Your task to perform on an android device: clear history in the chrome app Image 0: 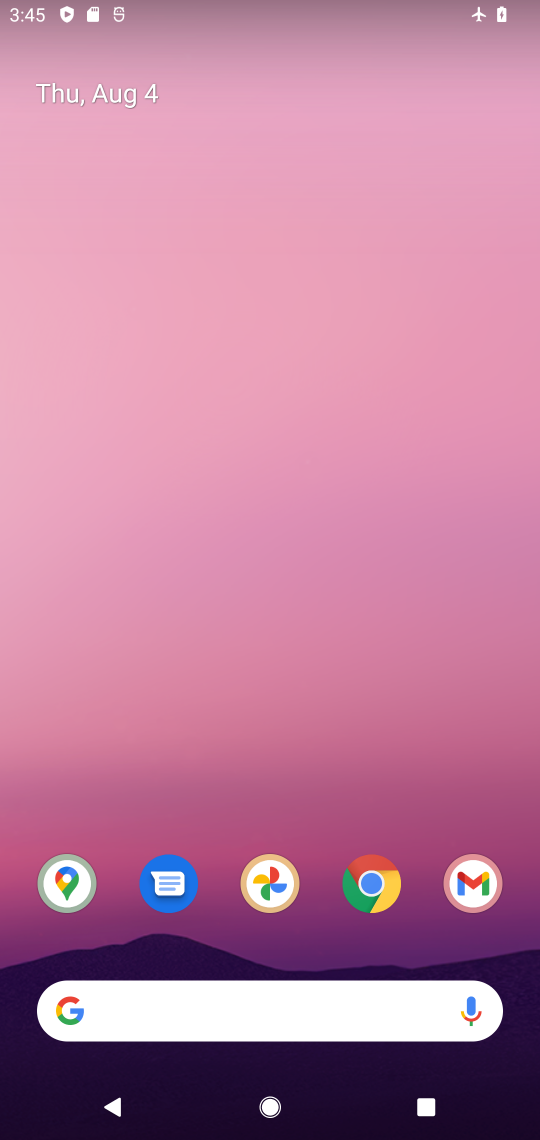
Step 0: drag from (413, 781) to (201, 1)
Your task to perform on an android device: clear history in the chrome app Image 1: 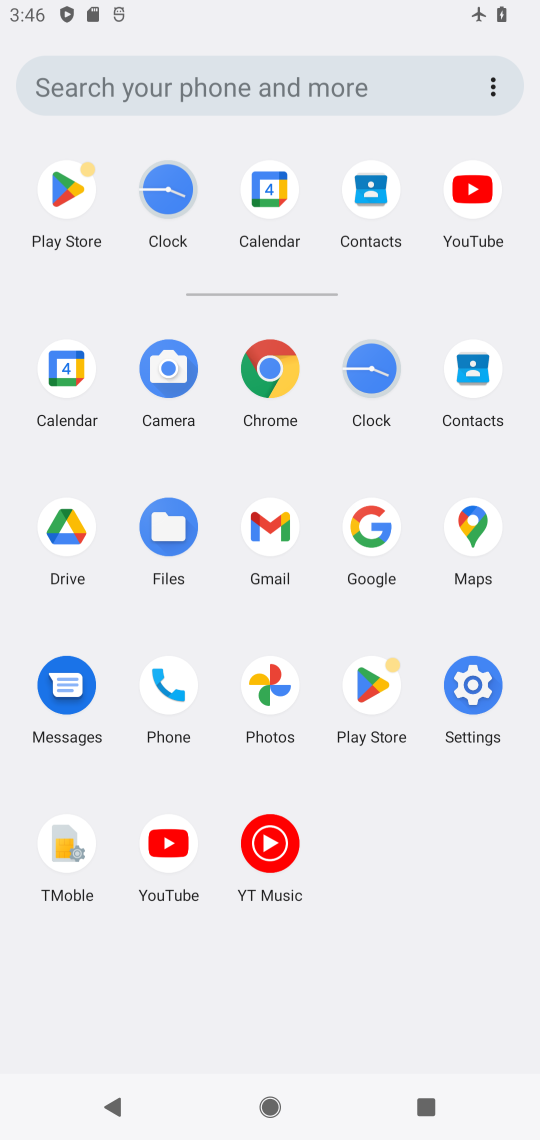
Step 1: click (267, 360)
Your task to perform on an android device: clear history in the chrome app Image 2: 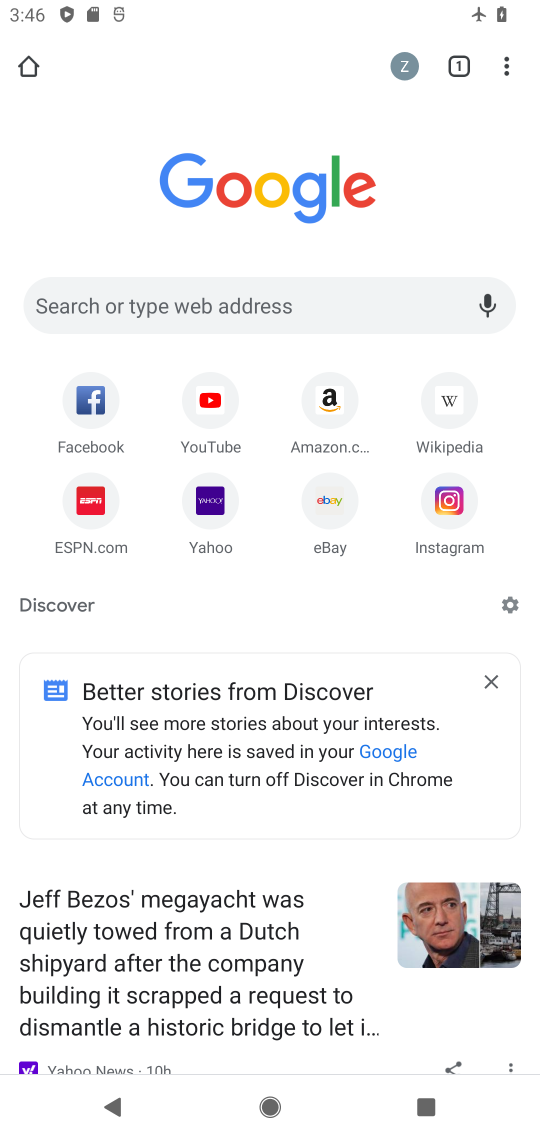
Step 2: click (508, 60)
Your task to perform on an android device: clear history in the chrome app Image 3: 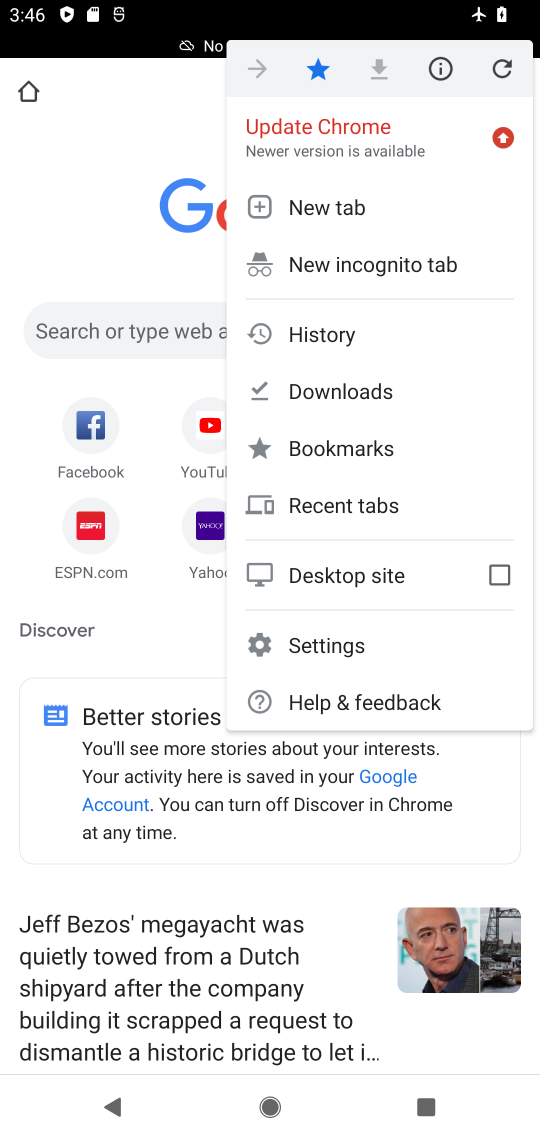
Step 3: click (393, 327)
Your task to perform on an android device: clear history in the chrome app Image 4: 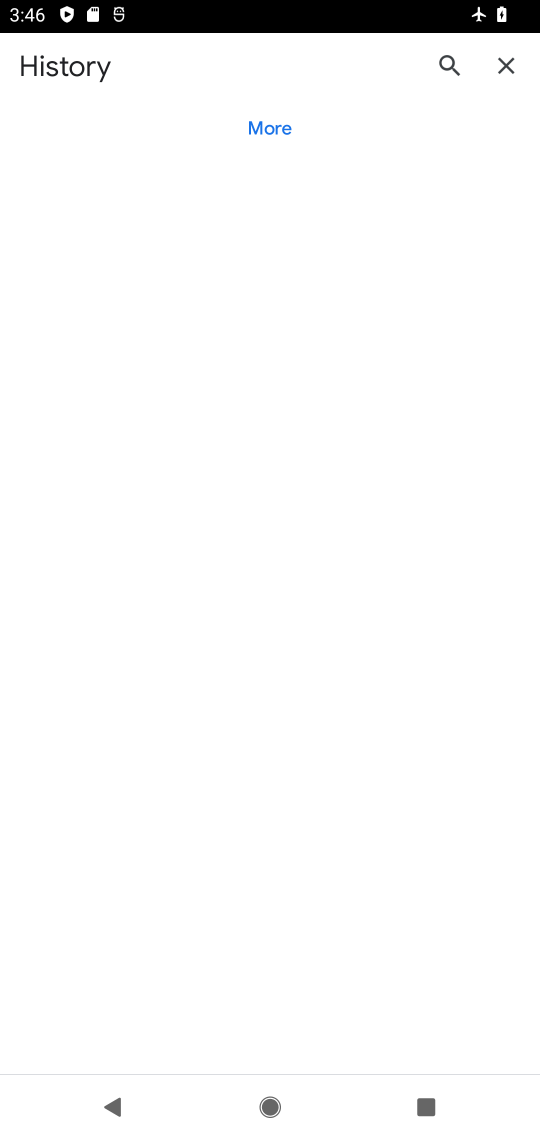
Step 4: task complete